Your task to perform on an android device: Search for Italian restaurants on Maps Image 0: 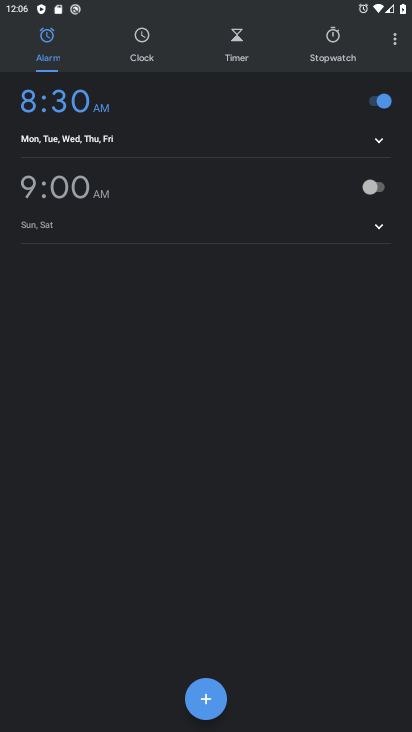
Step 0: press back button
Your task to perform on an android device: Search for Italian restaurants on Maps Image 1: 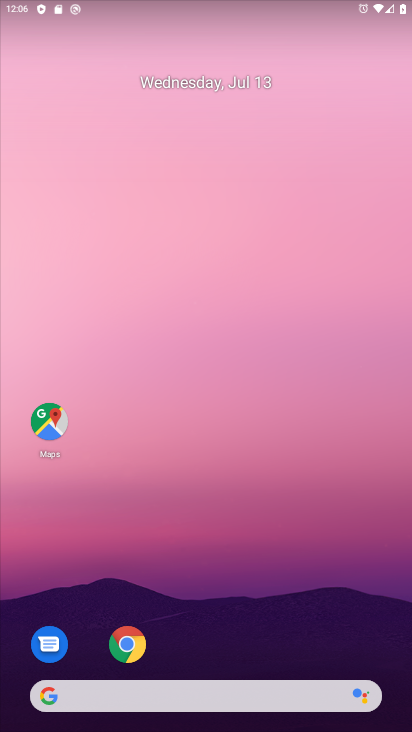
Step 1: drag from (226, 677) to (98, 4)
Your task to perform on an android device: Search for Italian restaurants on Maps Image 2: 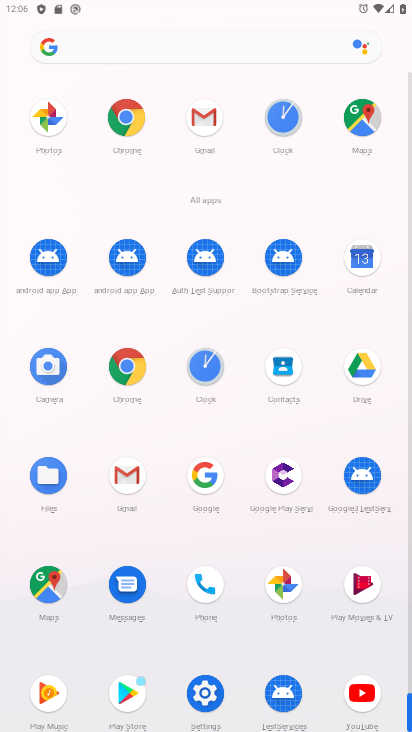
Step 2: click (52, 587)
Your task to perform on an android device: Search for Italian restaurants on Maps Image 3: 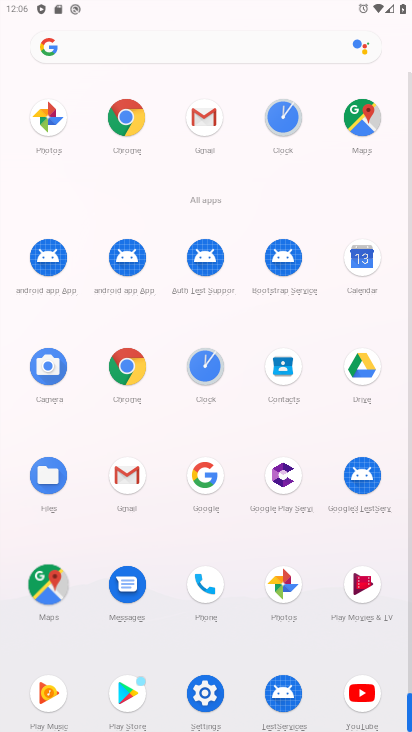
Step 3: click (55, 598)
Your task to perform on an android device: Search for Italian restaurants on Maps Image 4: 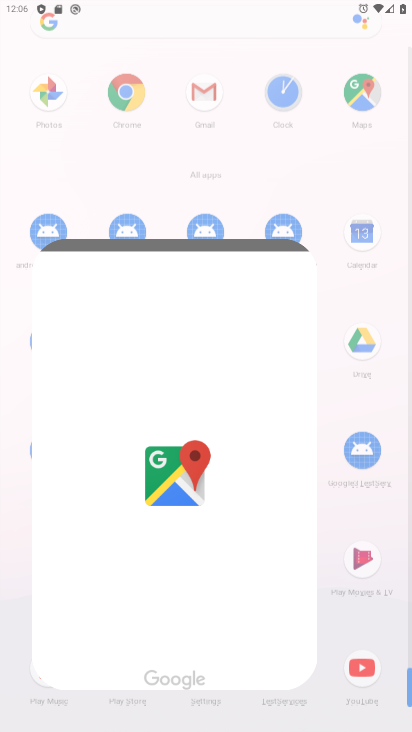
Step 4: click (56, 599)
Your task to perform on an android device: Search for Italian restaurants on Maps Image 5: 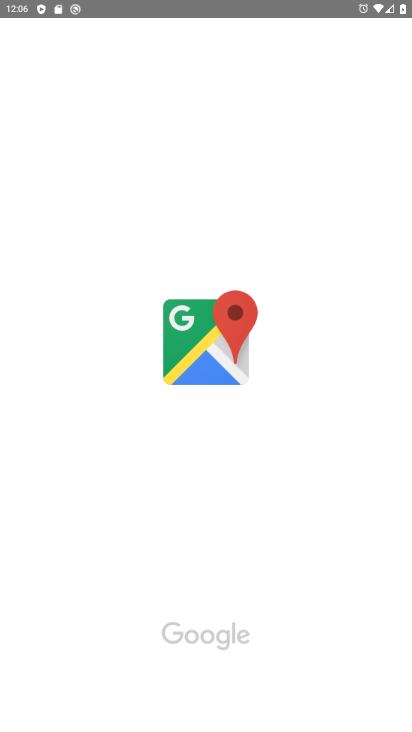
Step 5: click (56, 595)
Your task to perform on an android device: Search for Italian restaurants on Maps Image 6: 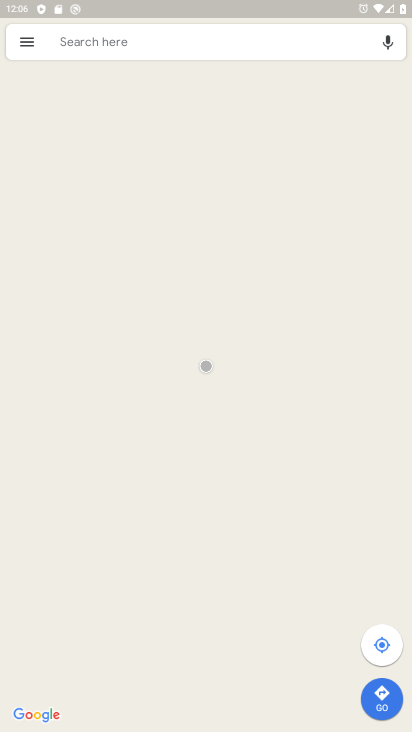
Step 6: click (66, 43)
Your task to perform on an android device: Search for Italian restaurants on Maps Image 7: 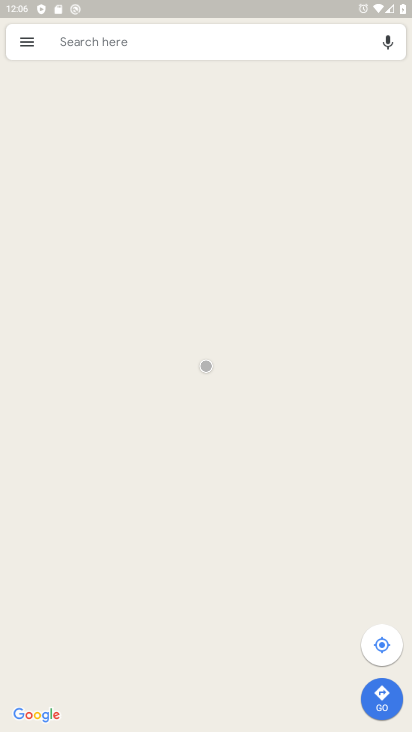
Step 7: click (66, 44)
Your task to perform on an android device: Search for Italian restaurants on Maps Image 8: 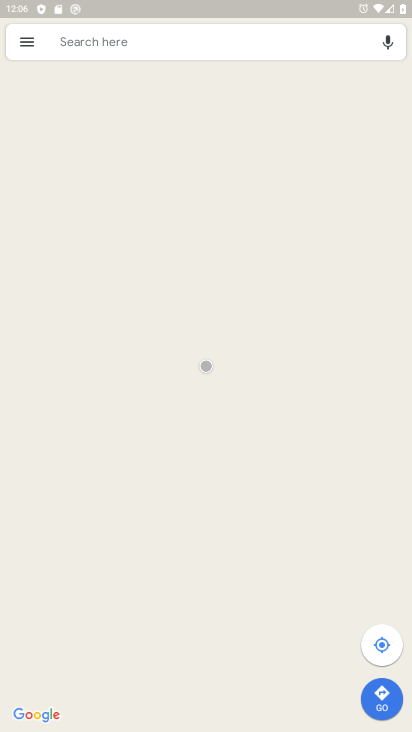
Step 8: click (66, 44)
Your task to perform on an android device: Search for Italian restaurants on Maps Image 9: 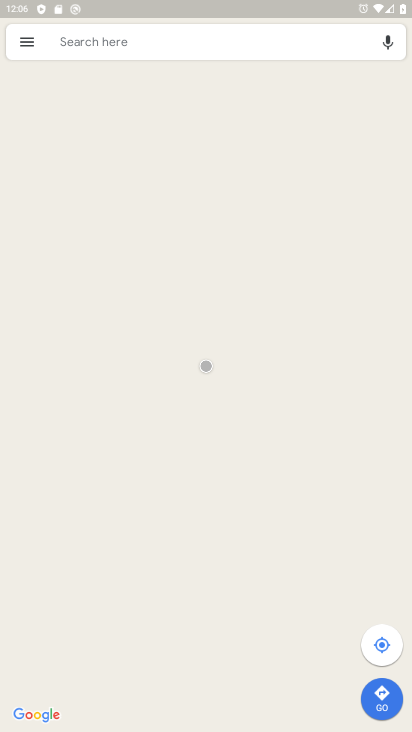
Step 9: click (66, 43)
Your task to perform on an android device: Search for Italian restaurants on Maps Image 10: 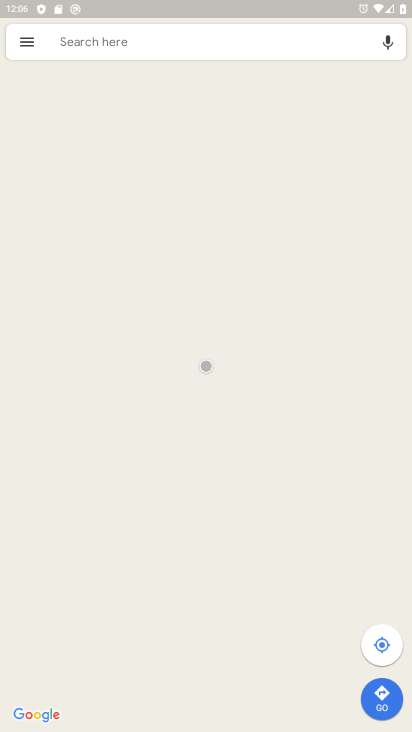
Step 10: click (67, 42)
Your task to perform on an android device: Search for Italian restaurants on Maps Image 11: 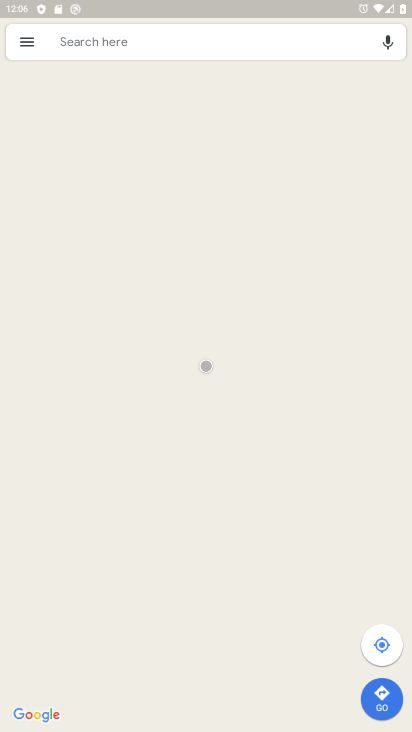
Step 11: click (70, 39)
Your task to perform on an android device: Search for Italian restaurants on Maps Image 12: 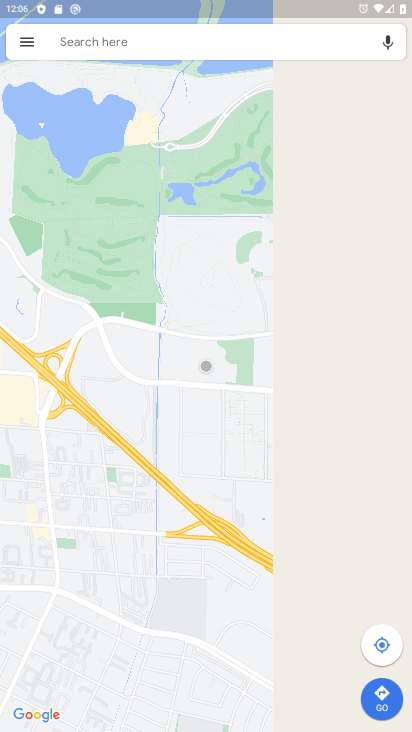
Step 12: click (78, 34)
Your task to perform on an android device: Search for Italian restaurants on Maps Image 13: 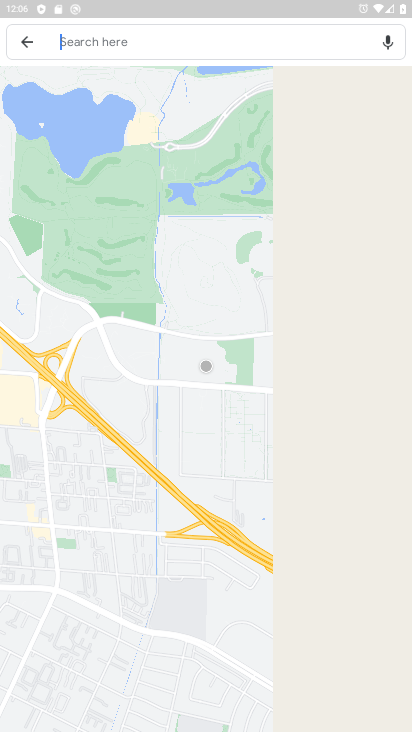
Step 13: click (94, 48)
Your task to perform on an android device: Search for Italian restaurants on Maps Image 14: 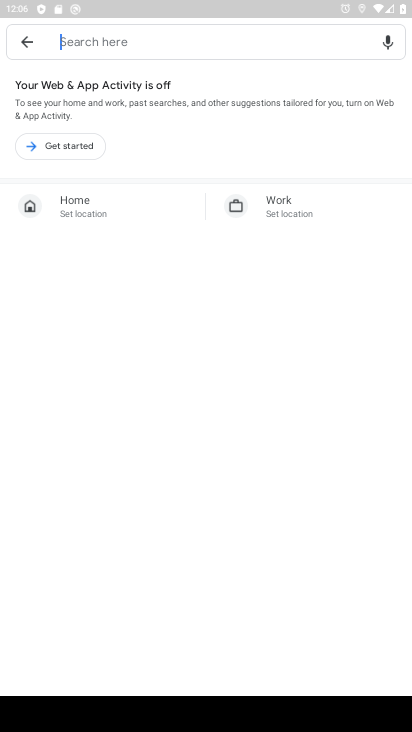
Step 14: type "italian restaurants"
Your task to perform on an android device: Search for Italian restaurants on Maps Image 15: 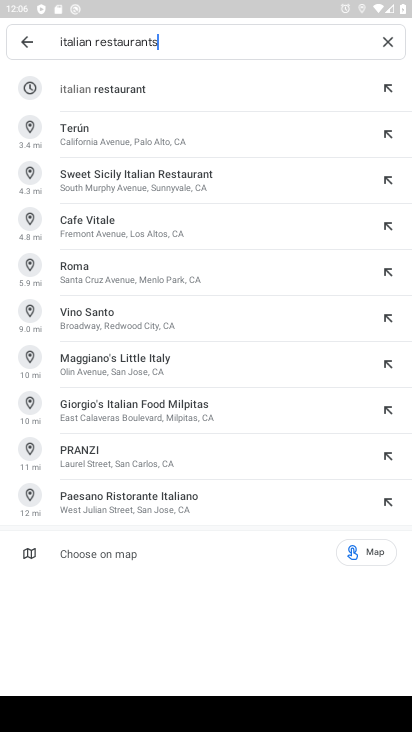
Step 15: click (143, 97)
Your task to perform on an android device: Search for Italian restaurants on Maps Image 16: 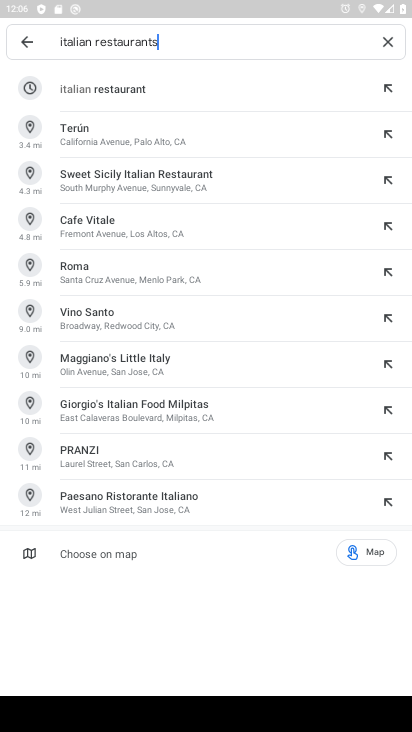
Step 16: click (139, 95)
Your task to perform on an android device: Search for Italian restaurants on Maps Image 17: 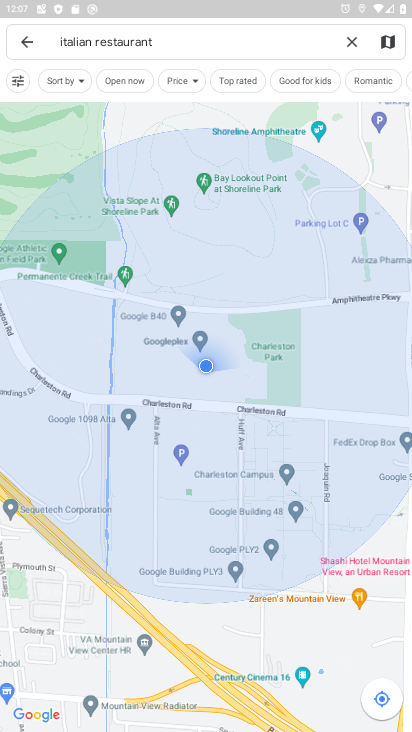
Step 17: task complete